Your task to perform on an android device: Search for a storage ottoman in the living room Image 0: 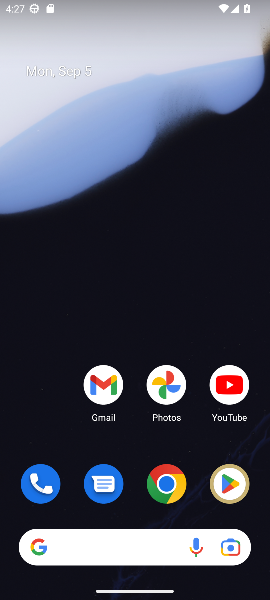
Step 0: click (174, 490)
Your task to perform on an android device: Search for a storage ottoman in the living room Image 1: 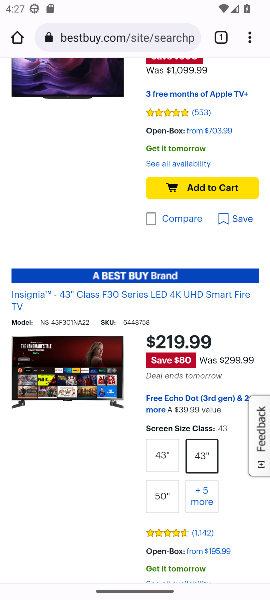
Step 1: click (153, 33)
Your task to perform on an android device: Search for a storage ottoman in the living room Image 2: 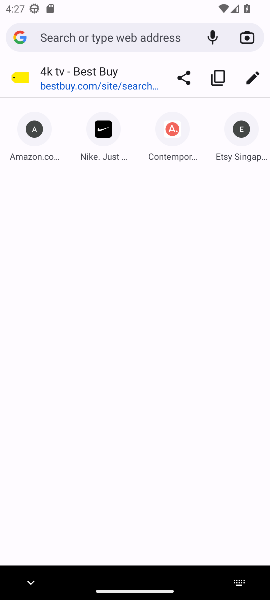
Step 2: type "storage ottoman in the living room"
Your task to perform on an android device: Search for a storage ottoman in the living room Image 3: 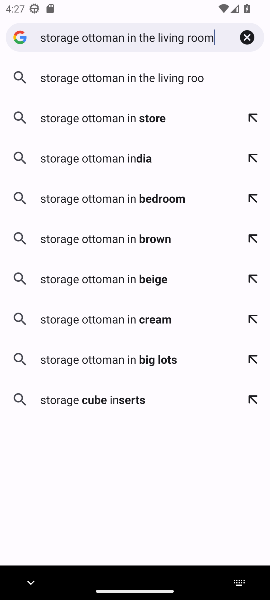
Step 3: press enter
Your task to perform on an android device: Search for a storage ottoman in the living room Image 4: 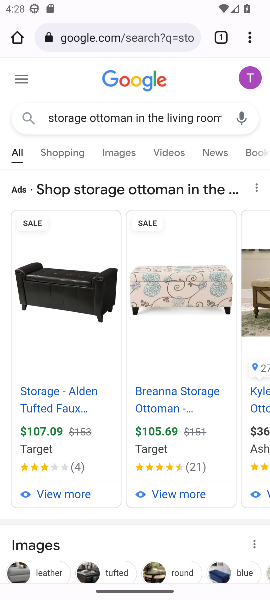
Step 4: task complete